Your task to perform on an android device: What's the weather? Image 0: 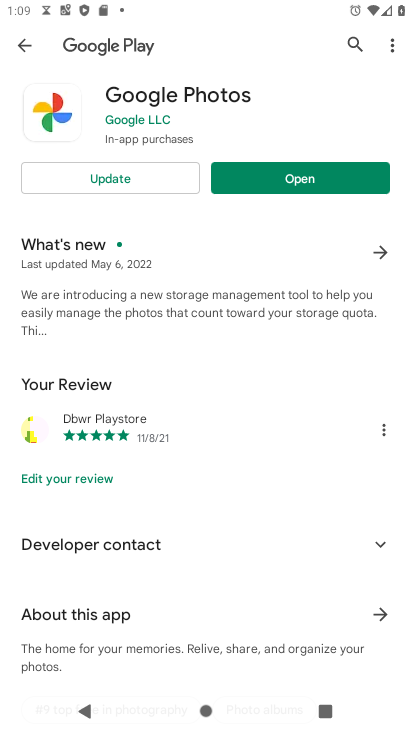
Step 0: press home button
Your task to perform on an android device: What's the weather? Image 1: 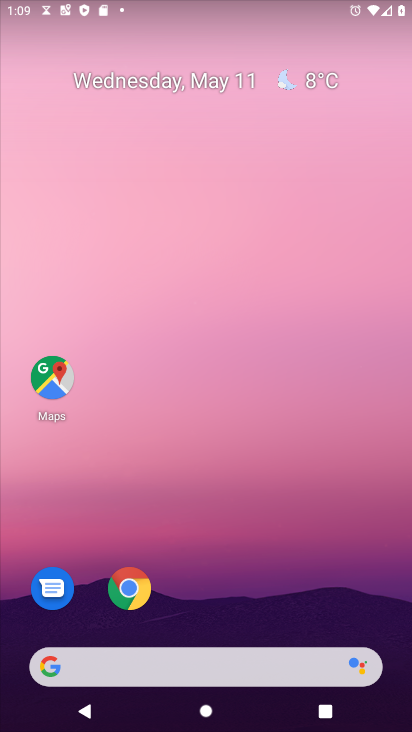
Step 1: click (310, 86)
Your task to perform on an android device: What's the weather? Image 2: 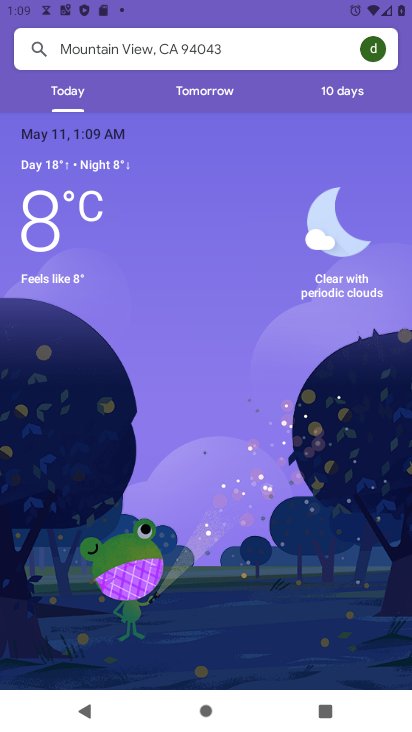
Step 2: task complete